Your task to perform on an android device: Open Yahoo.com Image 0: 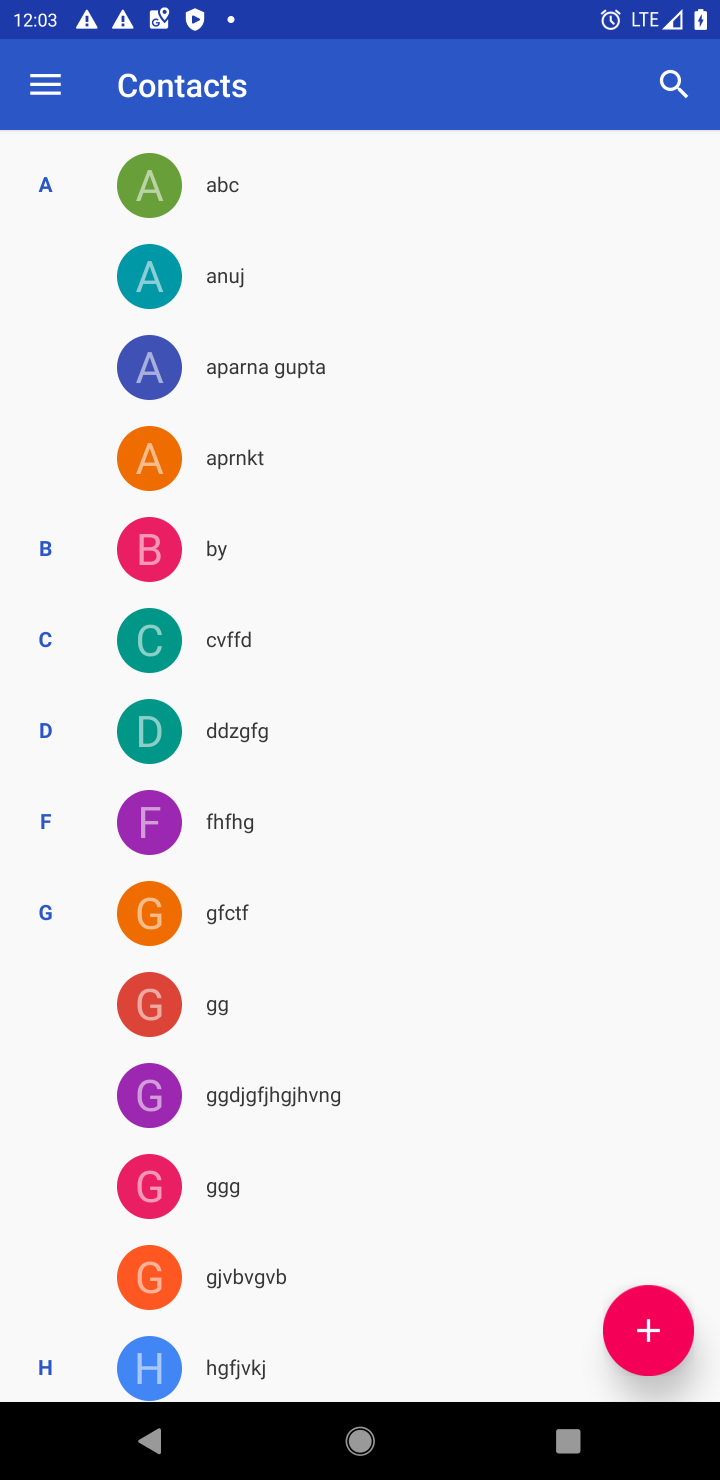
Step 0: press home button
Your task to perform on an android device: Open Yahoo.com Image 1: 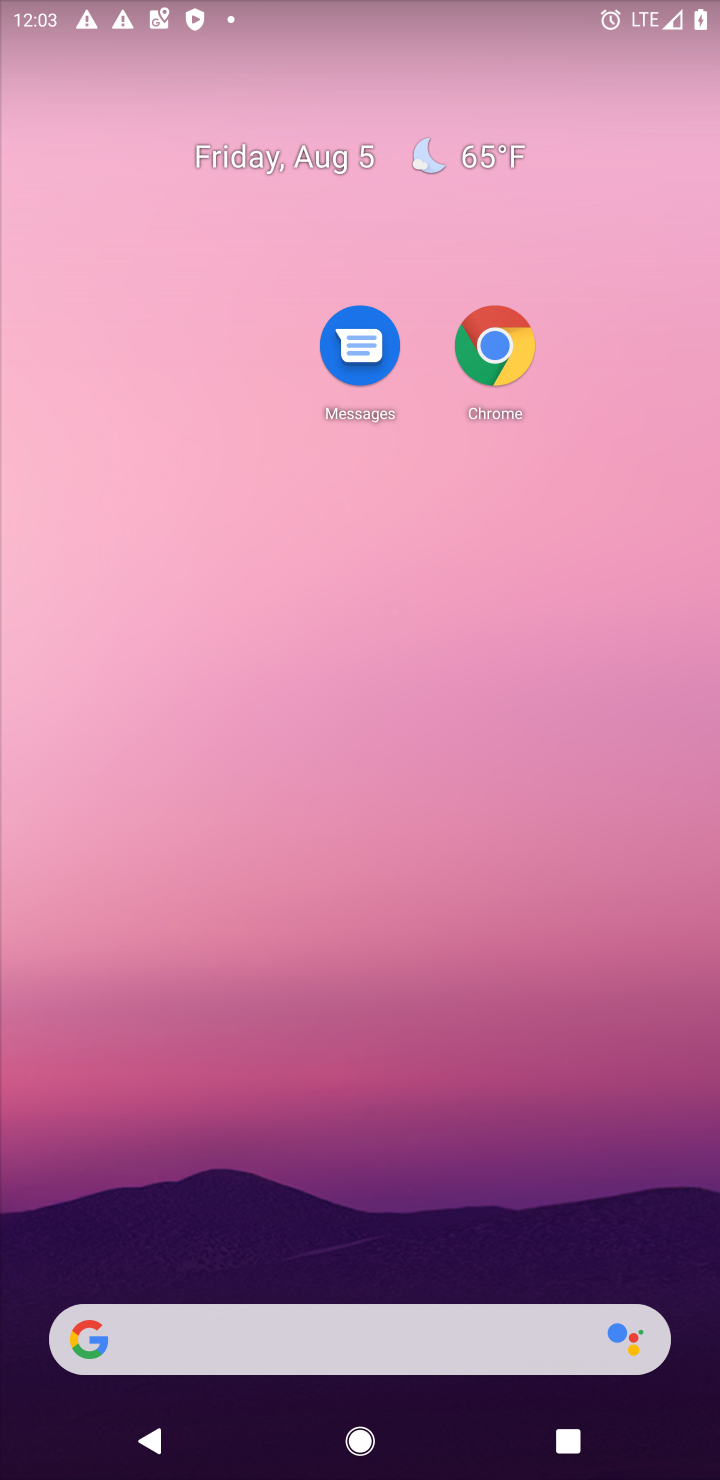
Step 1: drag from (424, 1335) to (547, 23)
Your task to perform on an android device: Open Yahoo.com Image 2: 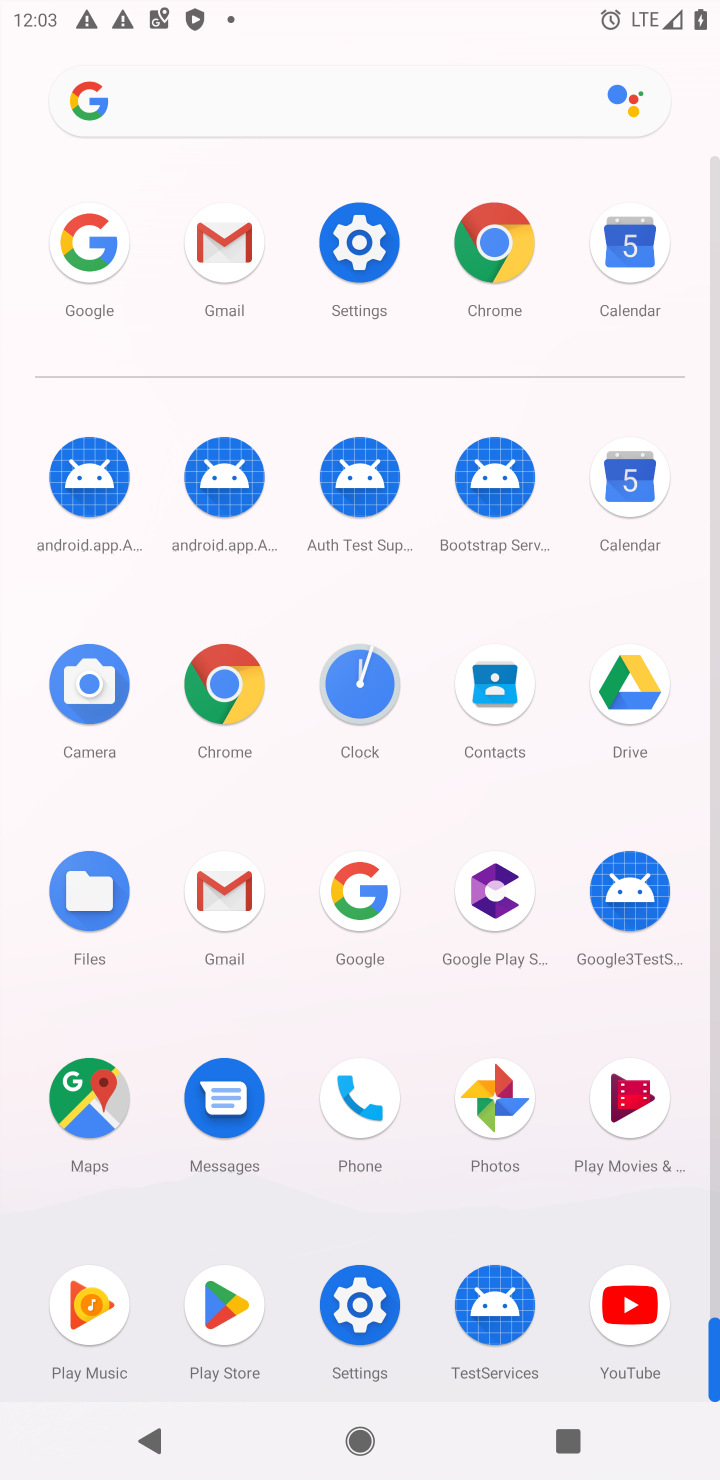
Step 2: click (516, 243)
Your task to perform on an android device: Open Yahoo.com Image 3: 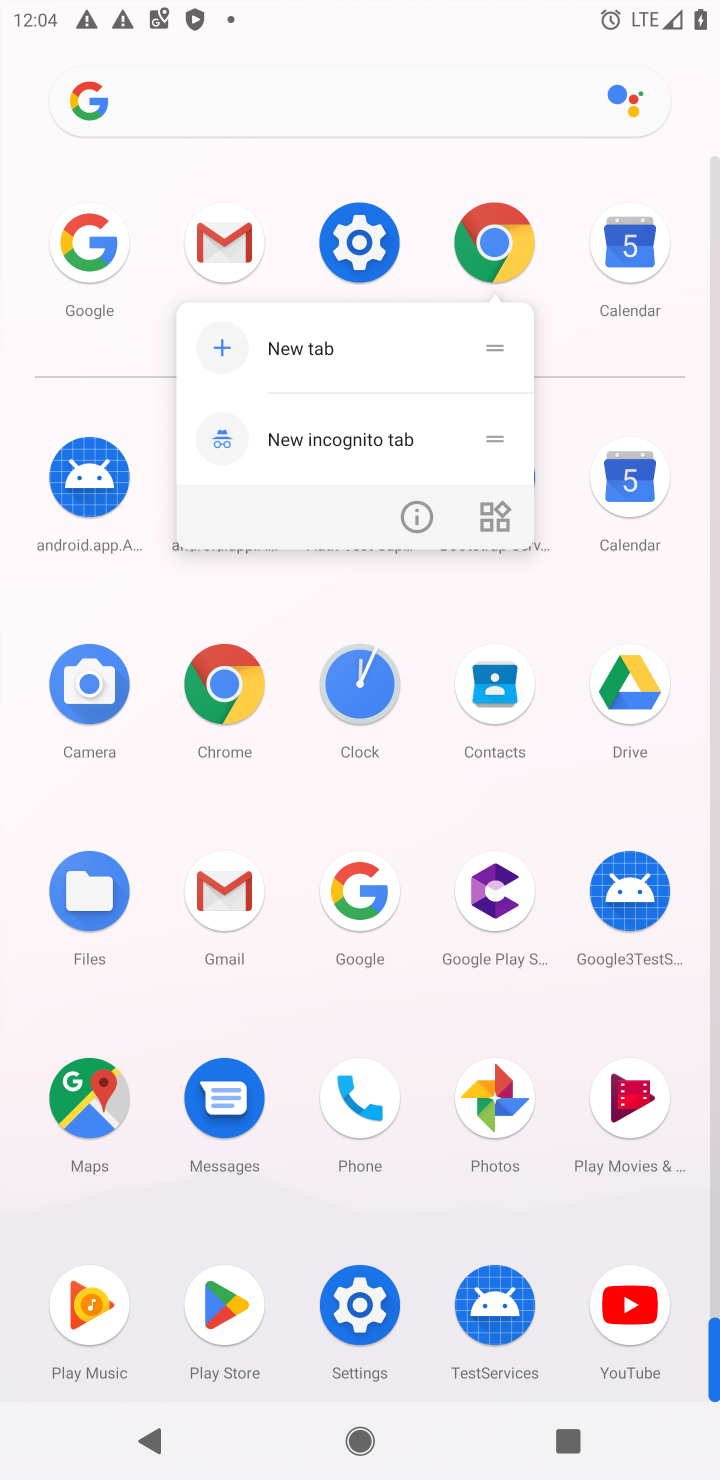
Step 3: click (516, 241)
Your task to perform on an android device: Open Yahoo.com Image 4: 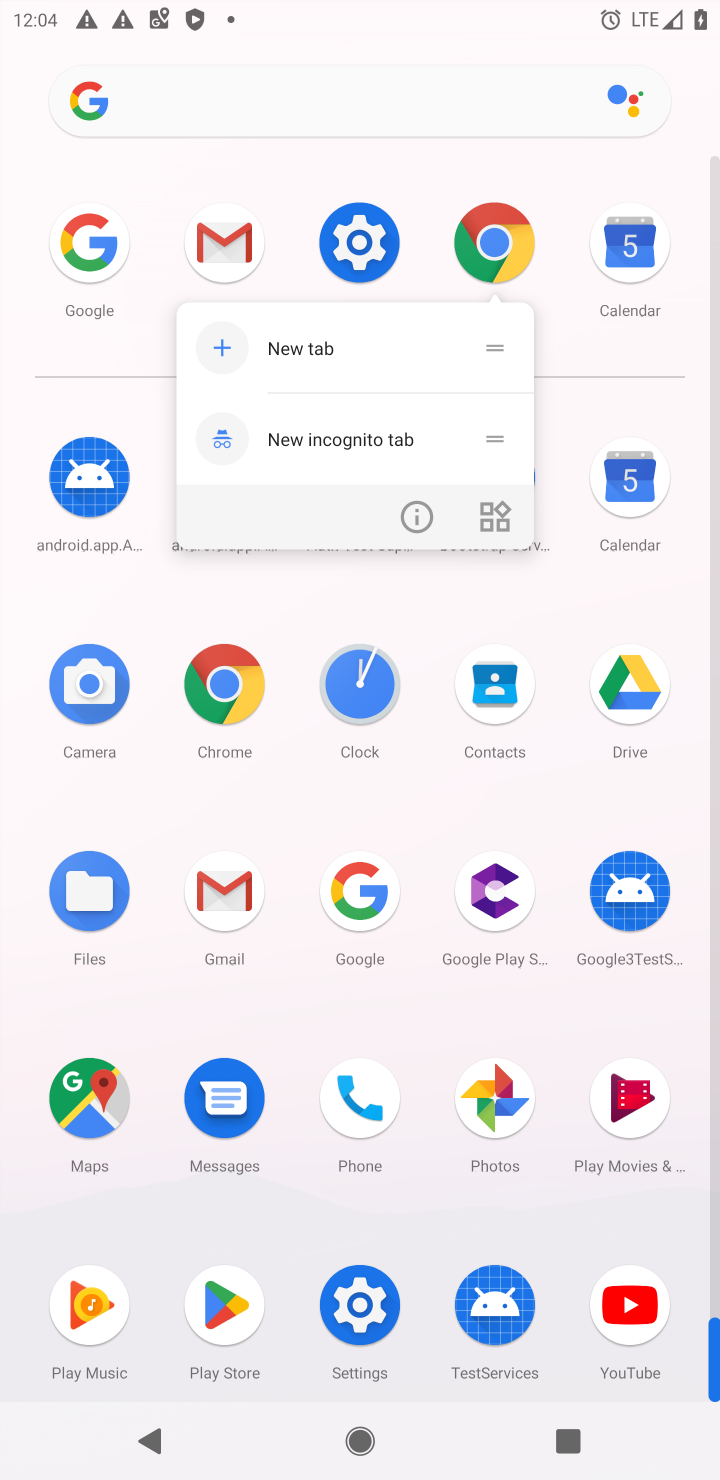
Step 4: click (516, 239)
Your task to perform on an android device: Open Yahoo.com Image 5: 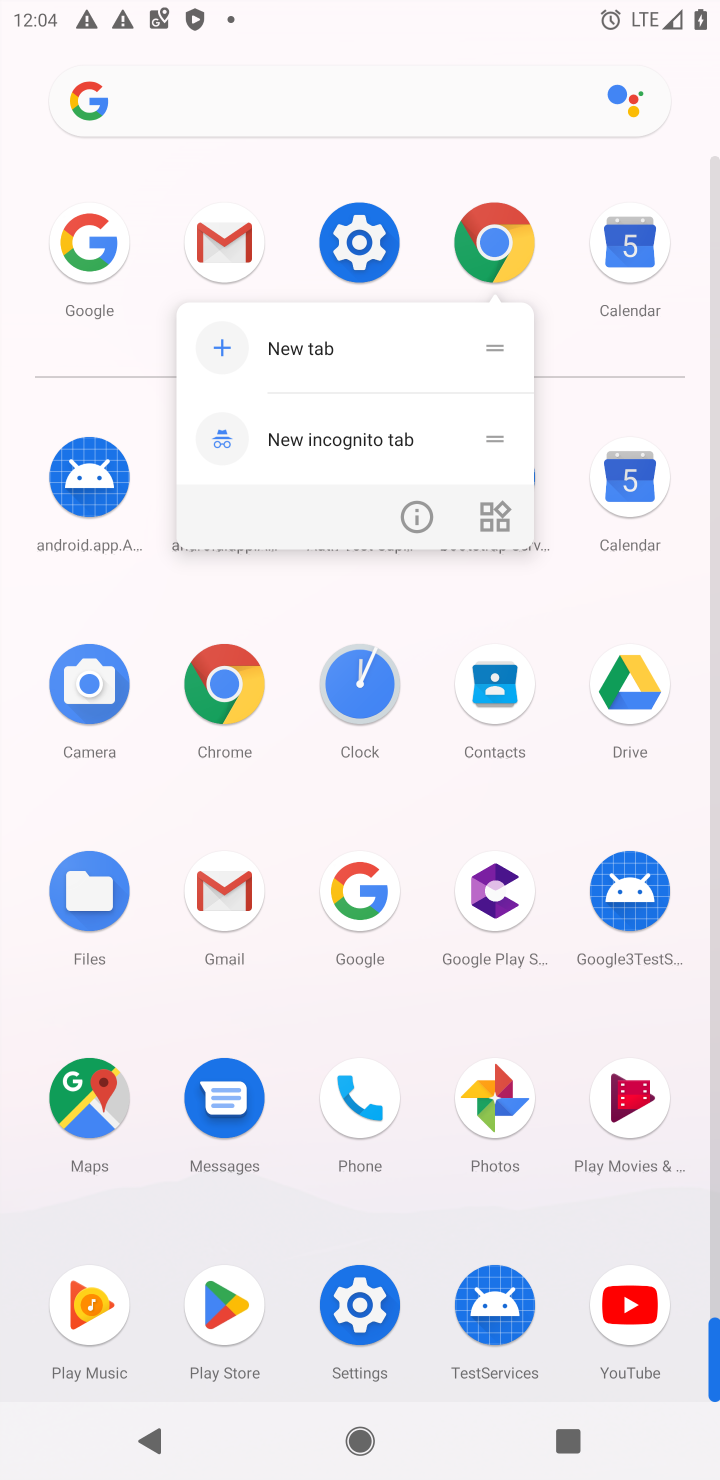
Step 5: click (516, 239)
Your task to perform on an android device: Open Yahoo.com Image 6: 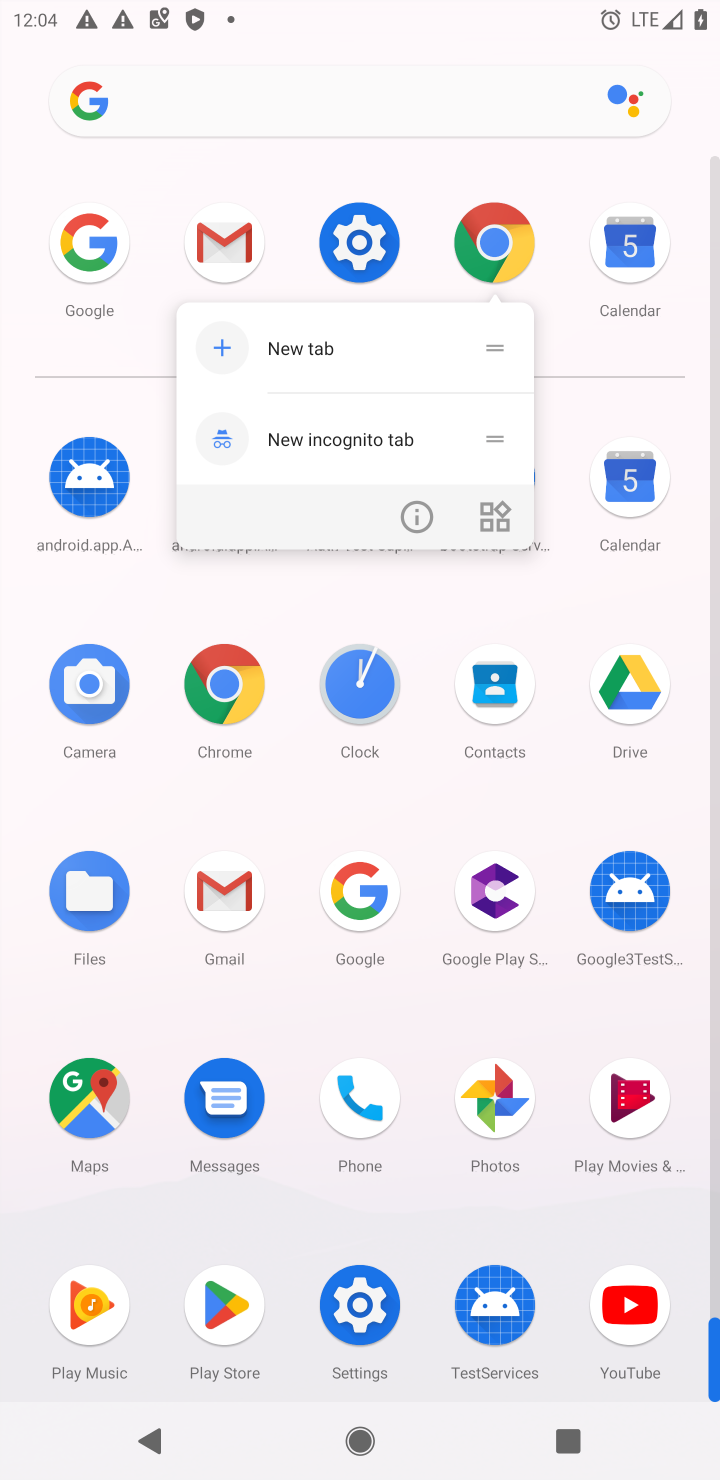
Step 6: click (516, 237)
Your task to perform on an android device: Open Yahoo.com Image 7: 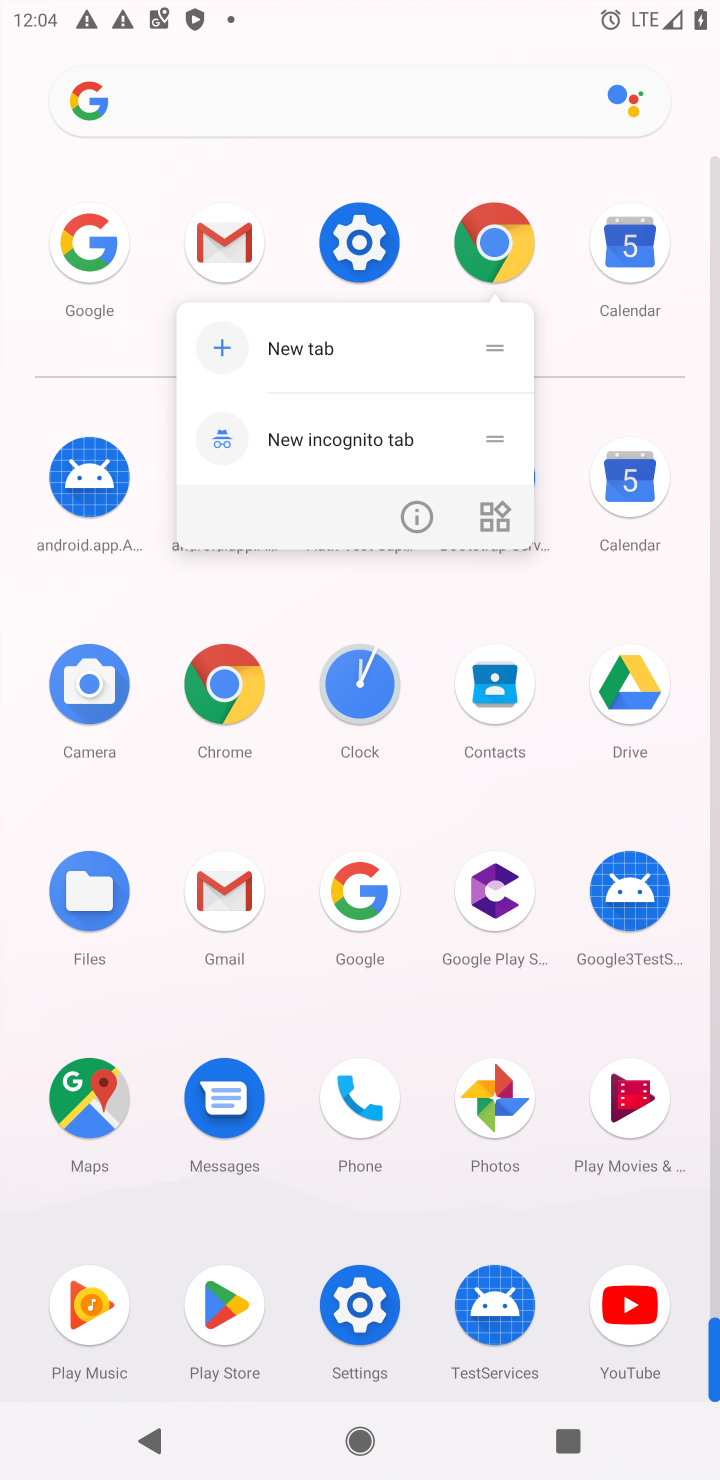
Step 7: click (489, 262)
Your task to perform on an android device: Open Yahoo.com Image 8: 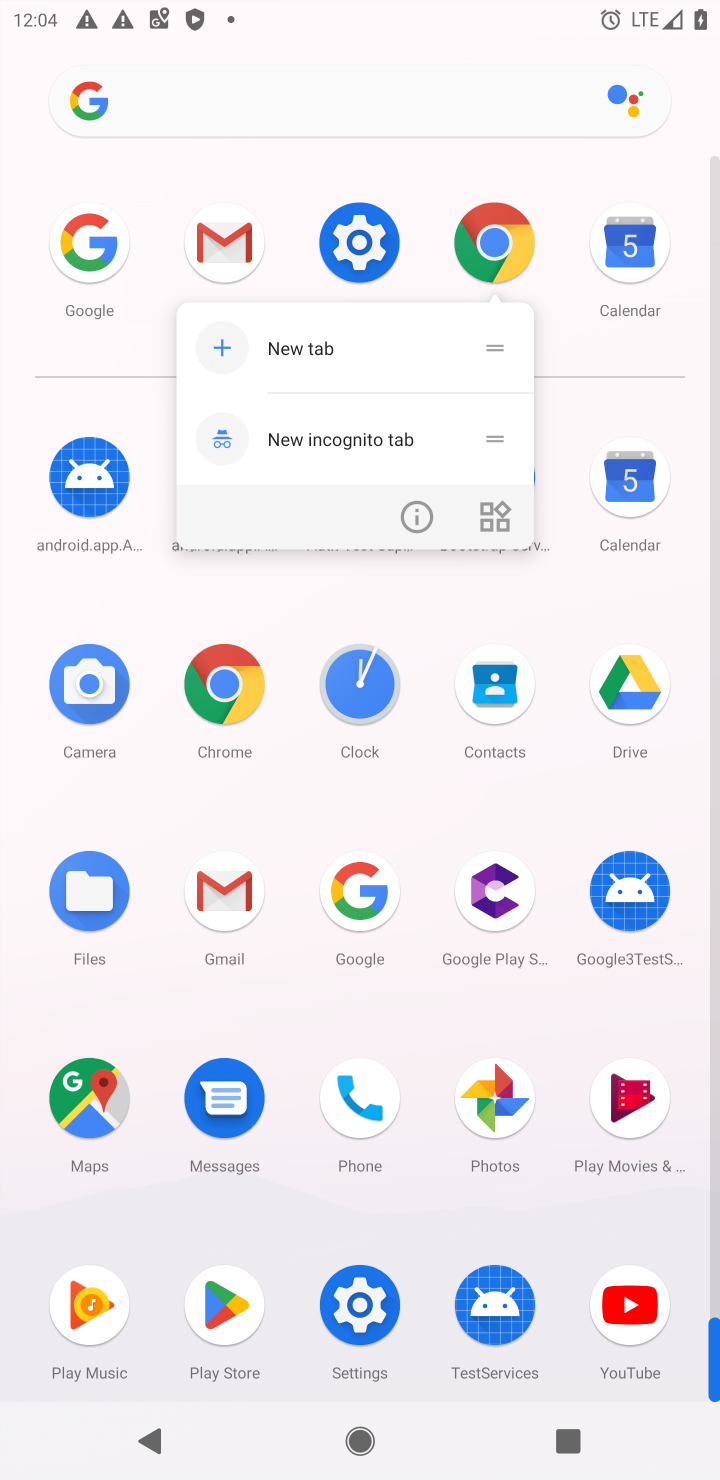
Step 8: click (489, 262)
Your task to perform on an android device: Open Yahoo.com Image 9: 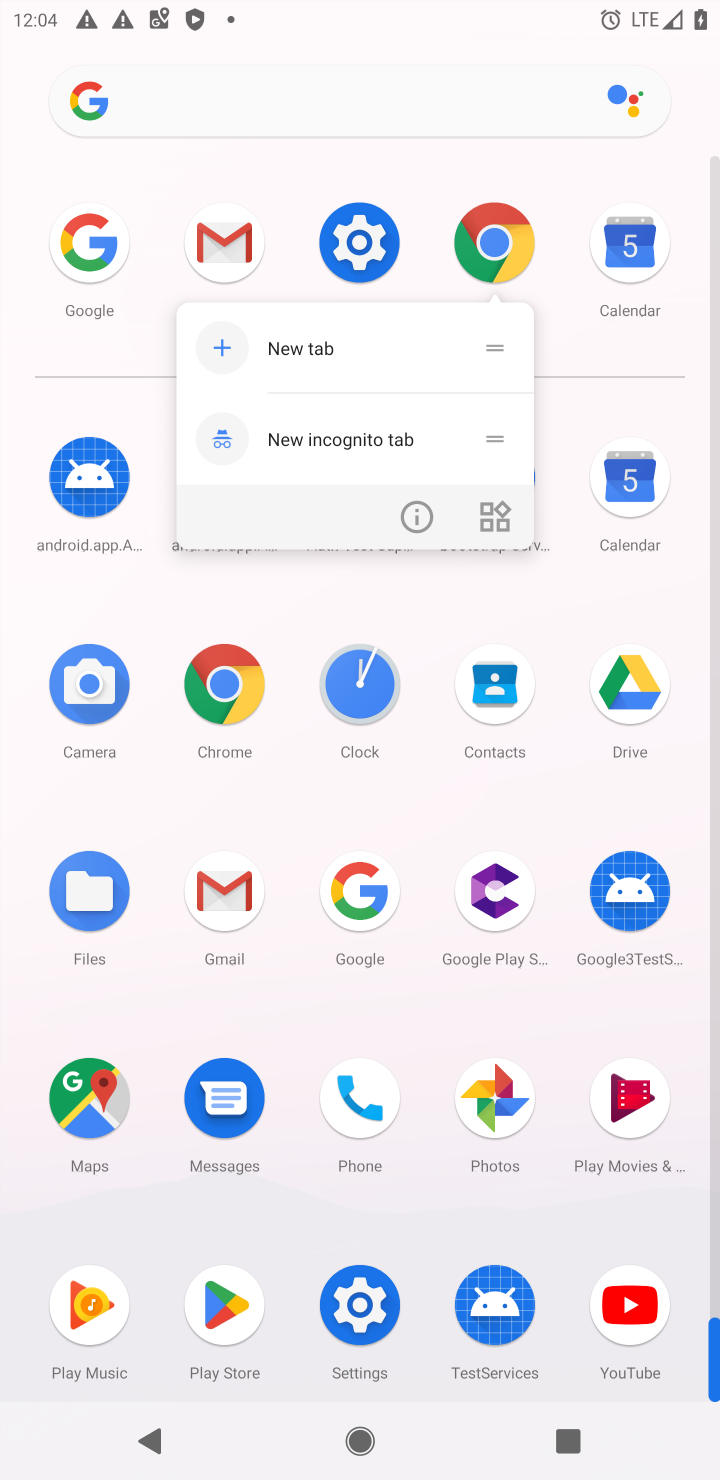
Step 9: click (489, 262)
Your task to perform on an android device: Open Yahoo.com Image 10: 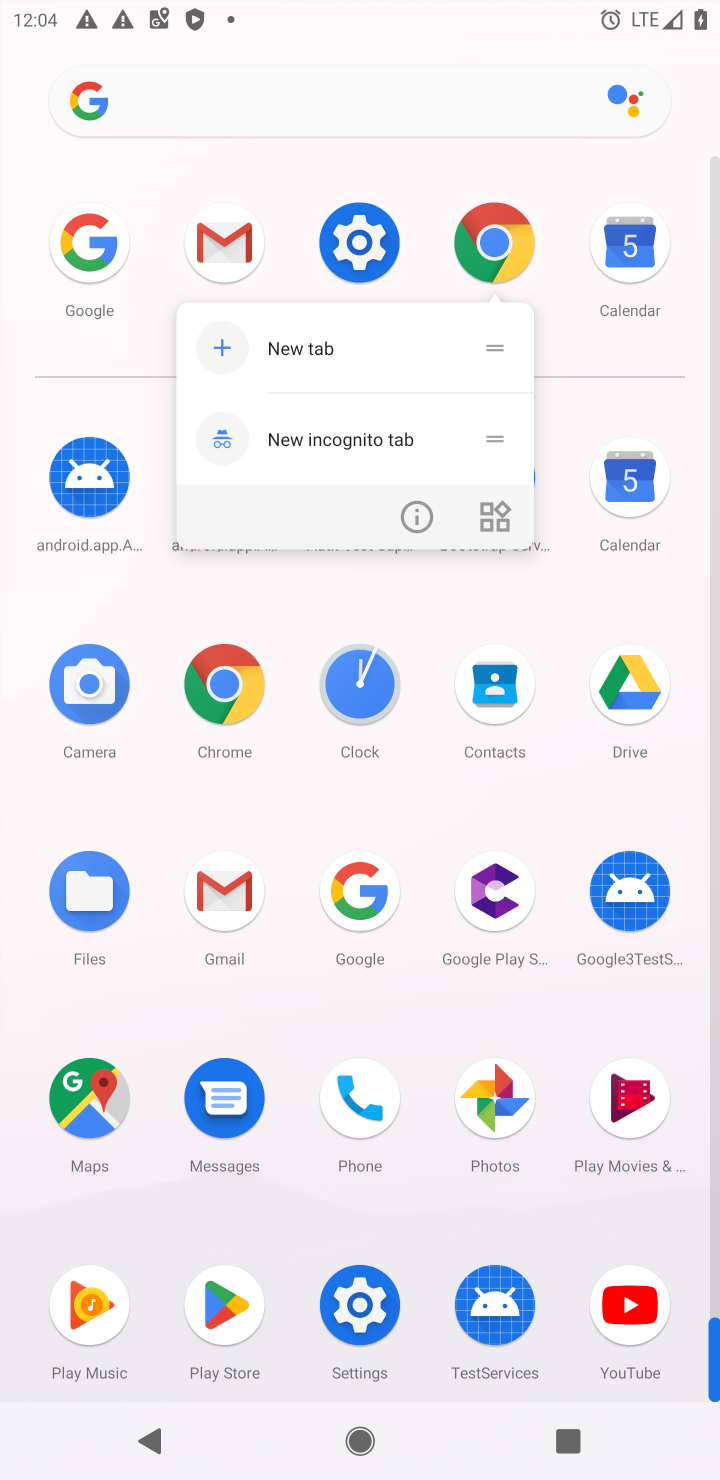
Step 10: click (485, 261)
Your task to perform on an android device: Open Yahoo.com Image 11: 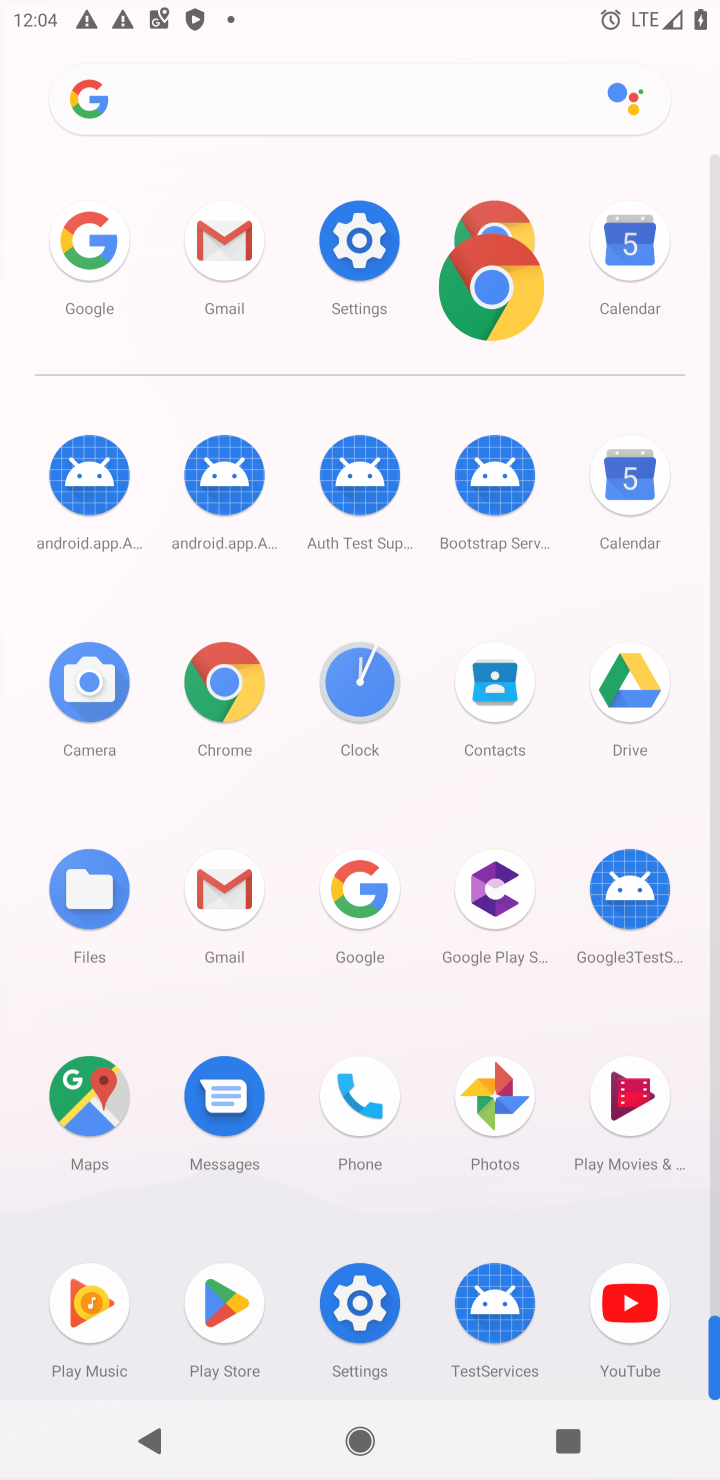
Step 11: click (485, 261)
Your task to perform on an android device: Open Yahoo.com Image 12: 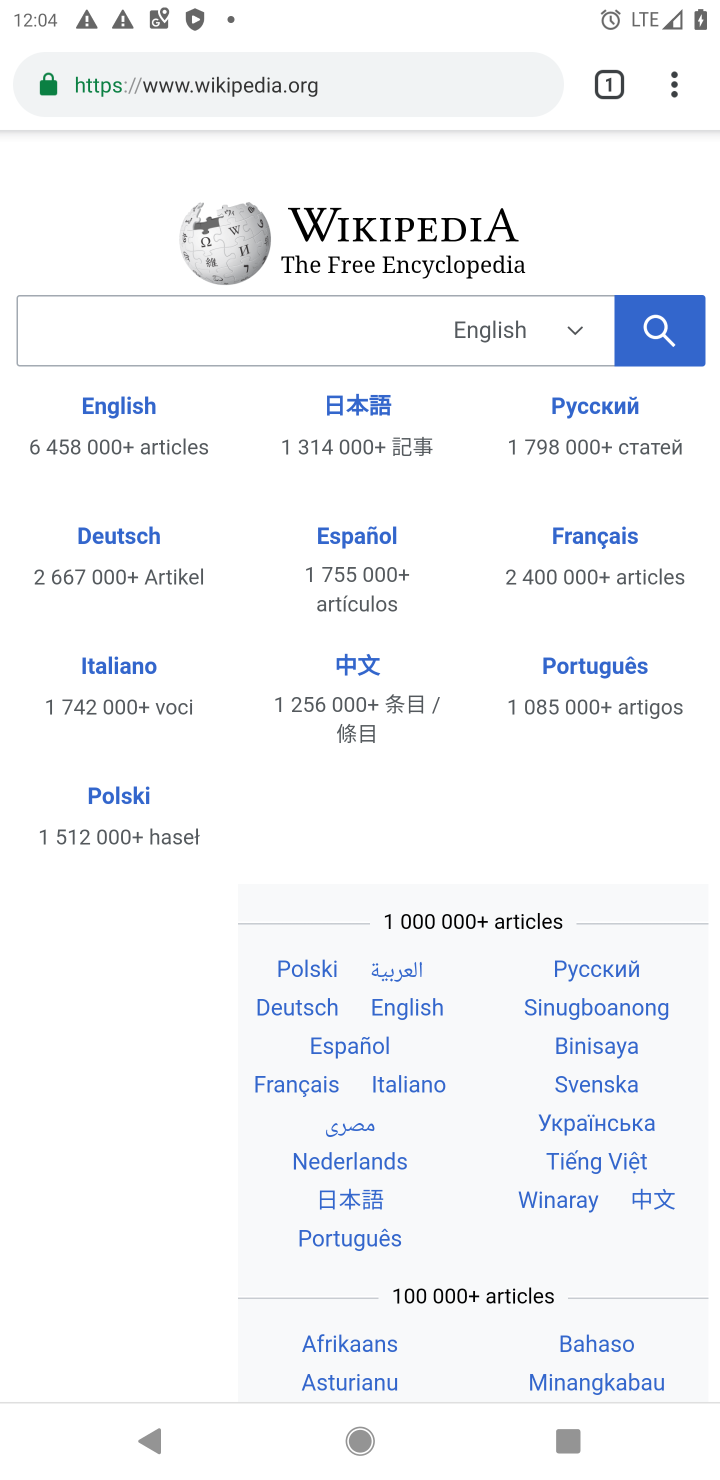
Step 12: click (330, 109)
Your task to perform on an android device: Open Yahoo.com Image 13: 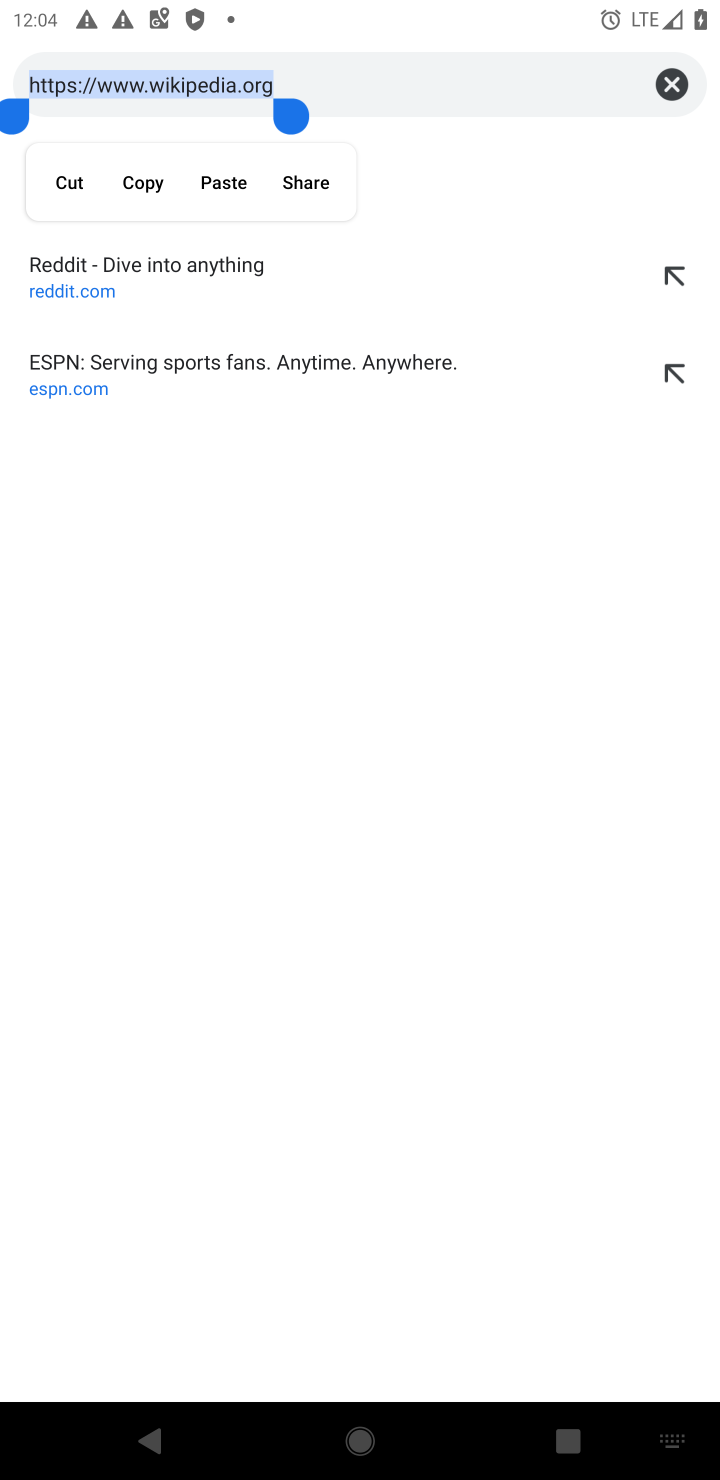
Step 13: click (662, 87)
Your task to perform on an android device: Open Yahoo.com Image 14: 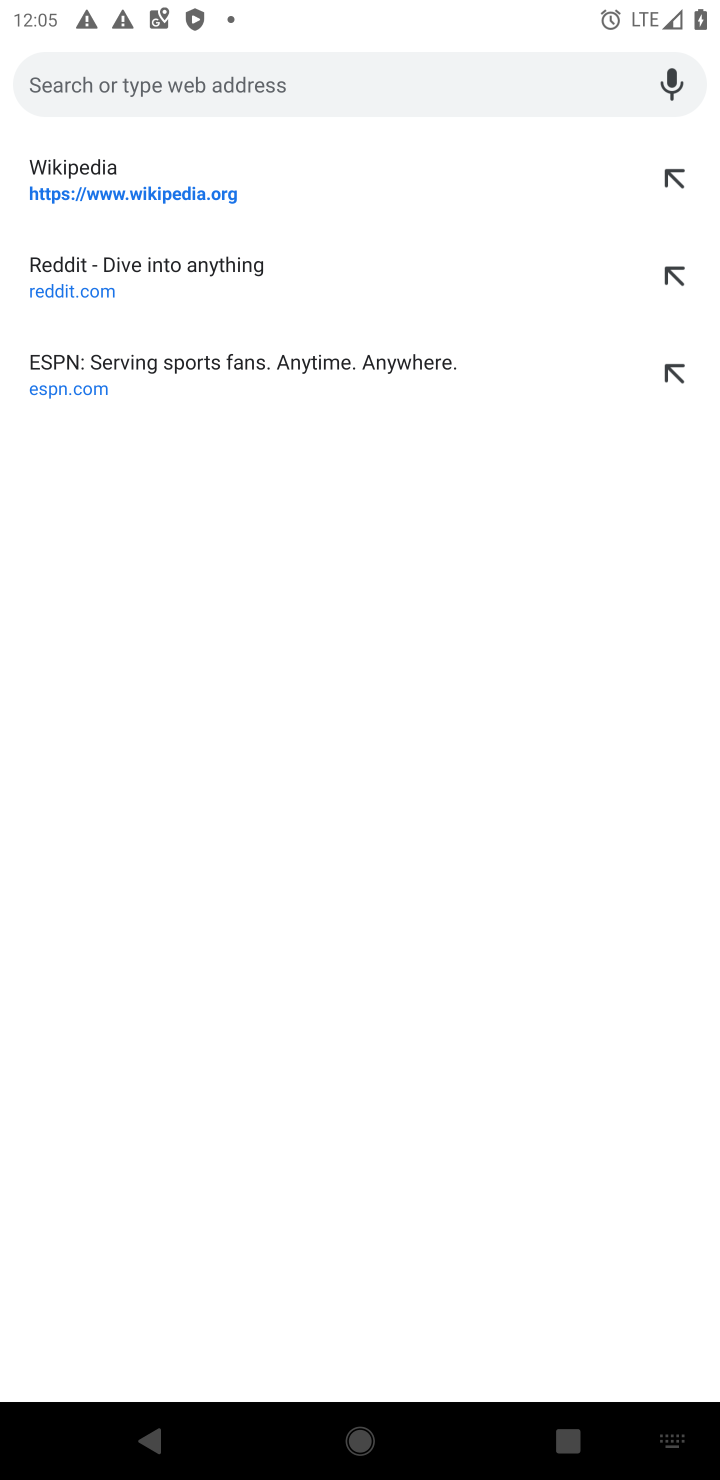
Step 14: type "Yahoo.com"
Your task to perform on an android device: Open Yahoo.com Image 15: 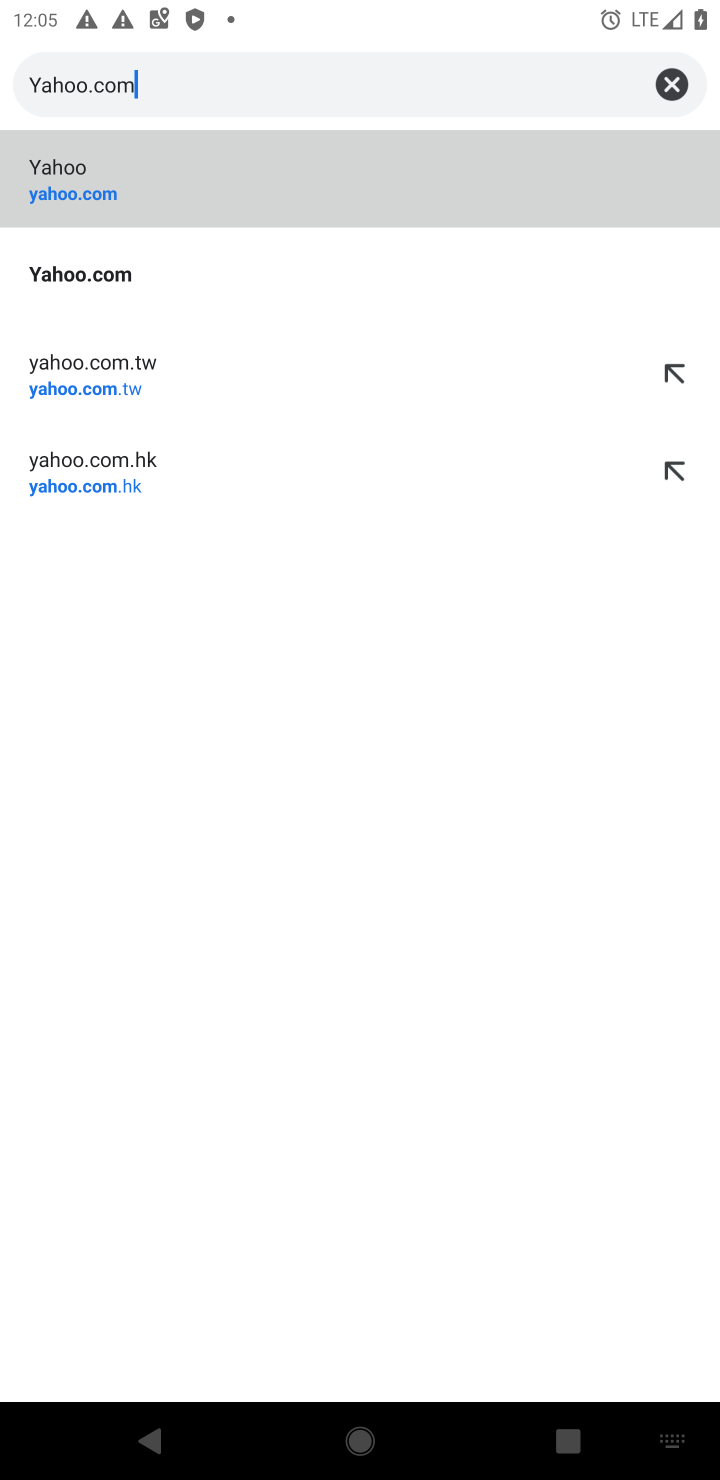
Step 15: click (96, 169)
Your task to perform on an android device: Open Yahoo.com Image 16: 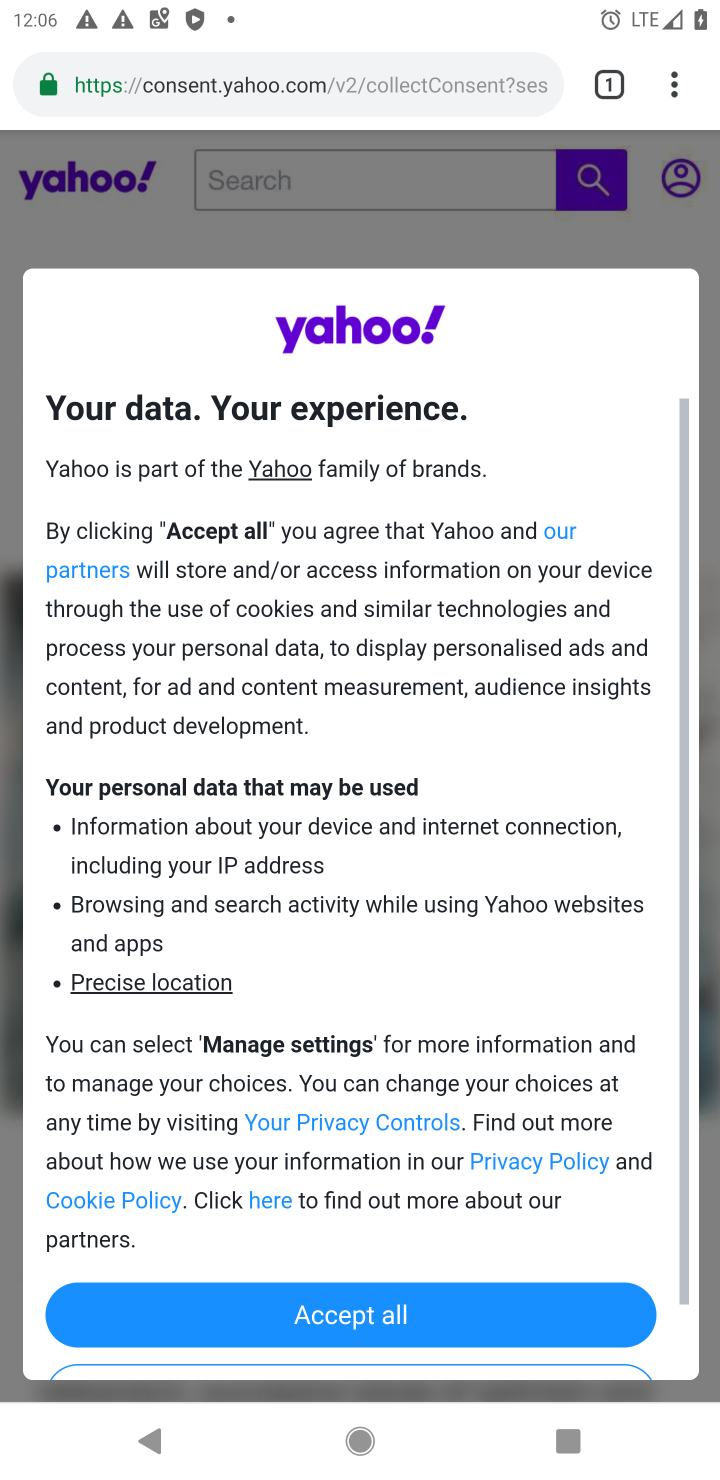
Step 16: task complete